Your task to perform on an android device: turn notification dots on Image 0: 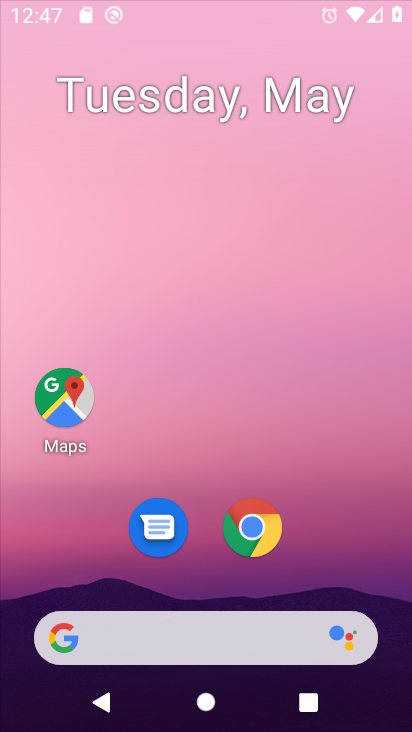
Step 0: click (237, 67)
Your task to perform on an android device: turn notification dots on Image 1: 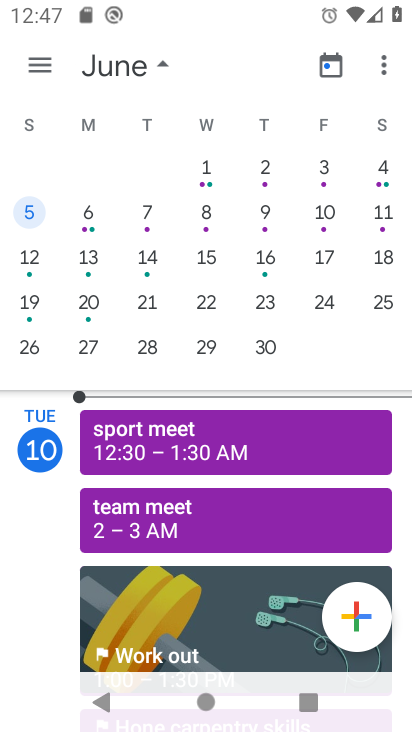
Step 1: press home button
Your task to perform on an android device: turn notification dots on Image 2: 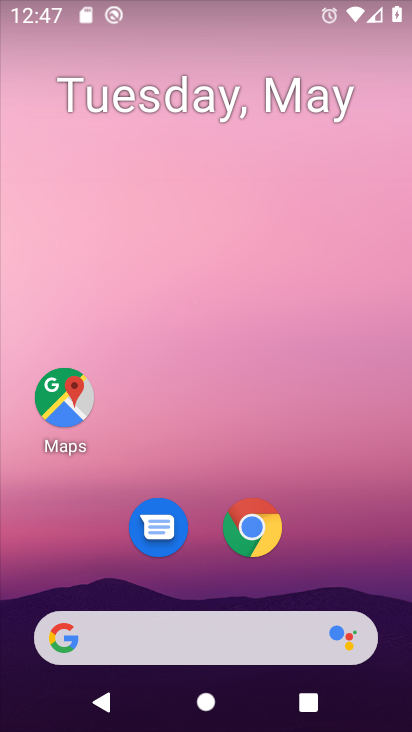
Step 2: drag from (242, 687) to (323, 5)
Your task to perform on an android device: turn notification dots on Image 3: 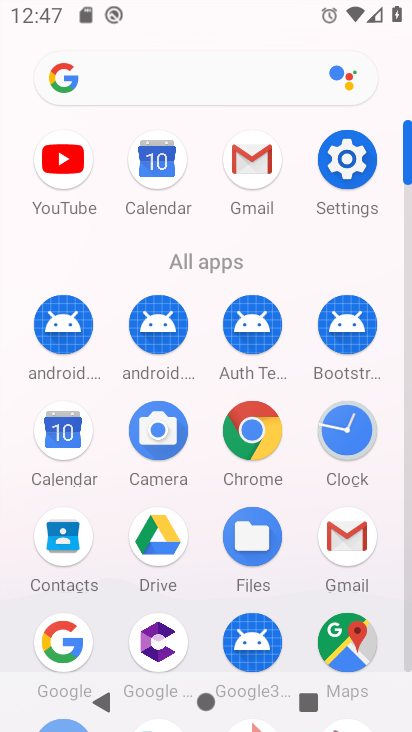
Step 3: click (345, 177)
Your task to perform on an android device: turn notification dots on Image 4: 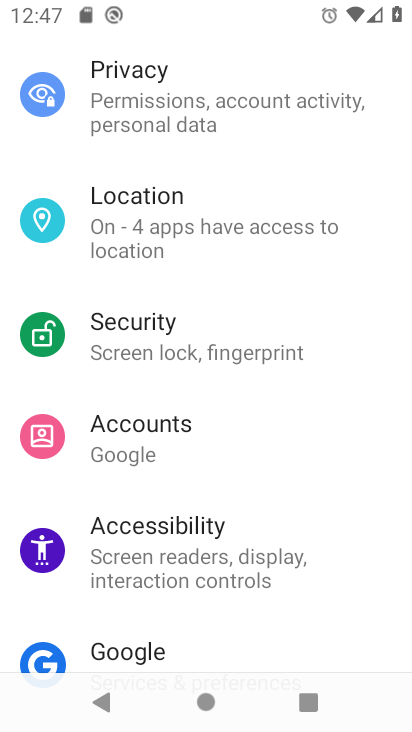
Step 4: drag from (224, 155) to (232, 697)
Your task to perform on an android device: turn notification dots on Image 5: 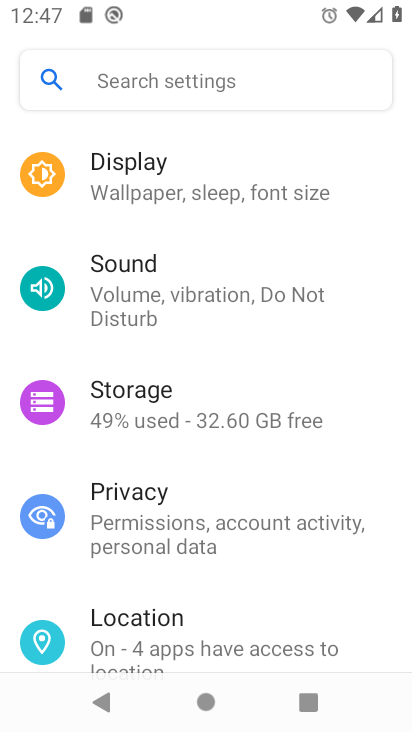
Step 5: drag from (307, 170) to (298, 658)
Your task to perform on an android device: turn notification dots on Image 6: 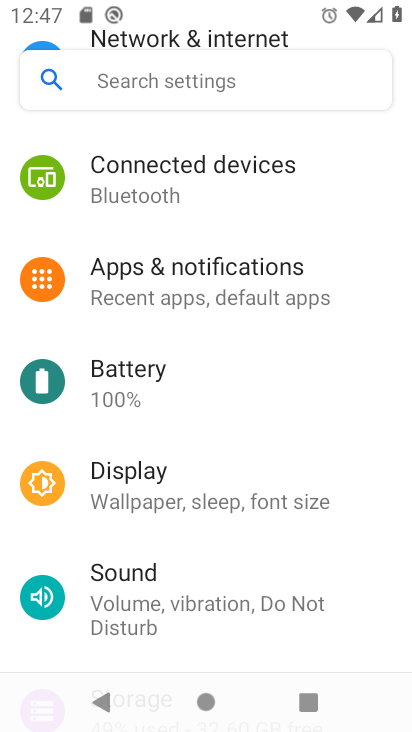
Step 6: click (270, 258)
Your task to perform on an android device: turn notification dots on Image 7: 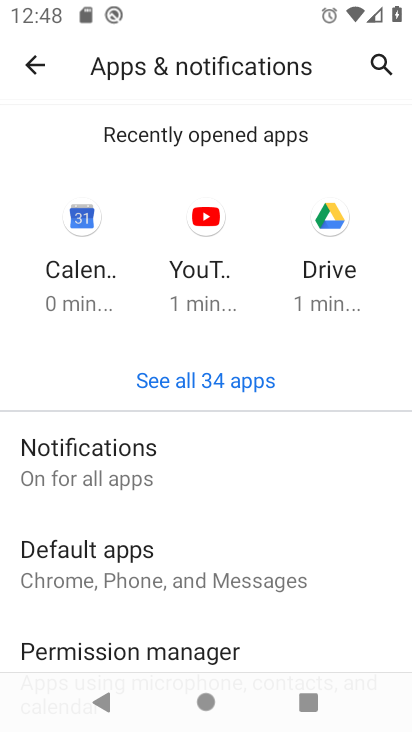
Step 7: drag from (271, 608) to (268, 138)
Your task to perform on an android device: turn notification dots on Image 8: 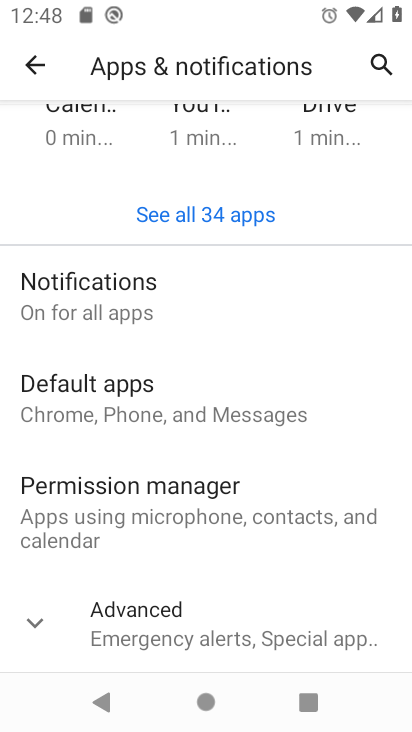
Step 8: click (158, 298)
Your task to perform on an android device: turn notification dots on Image 9: 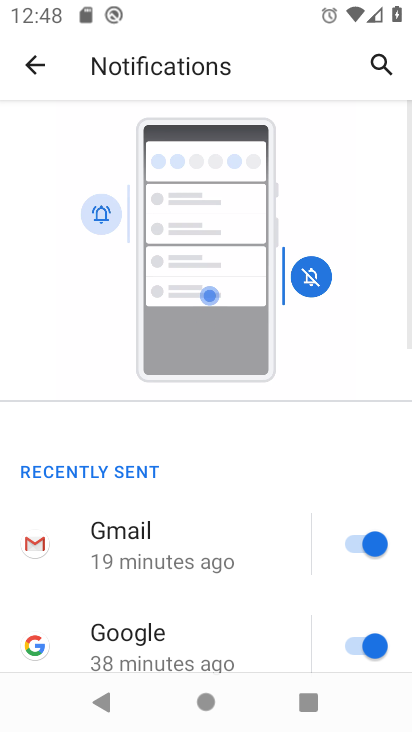
Step 9: drag from (261, 591) to (243, 28)
Your task to perform on an android device: turn notification dots on Image 10: 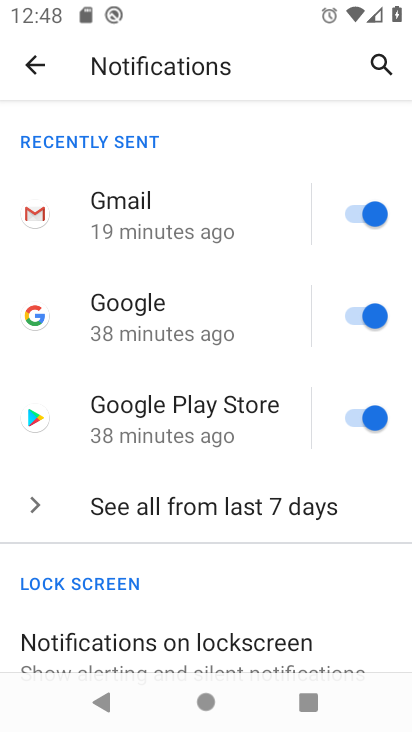
Step 10: drag from (180, 634) to (242, 50)
Your task to perform on an android device: turn notification dots on Image 11: 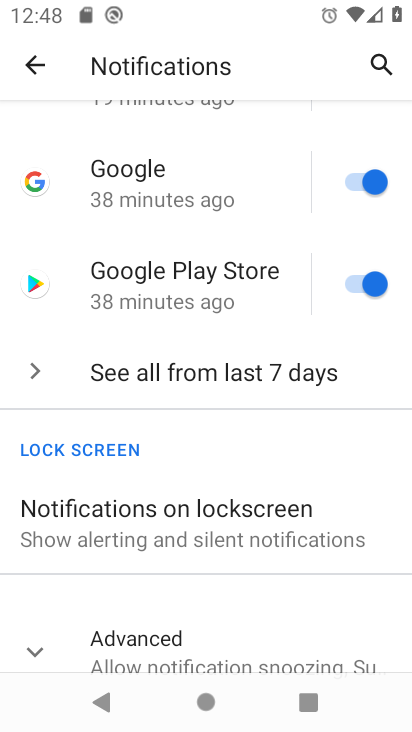
Step 11: click (293, 659)
Your task to perform on an android device: turn notification dots on Image 12: 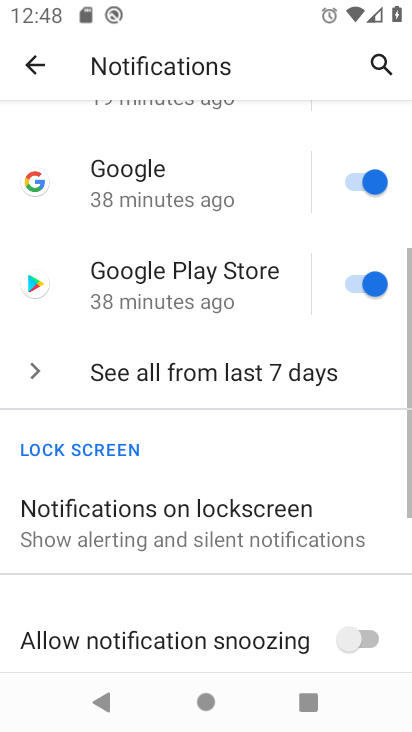
Step 12: task complete